Your task to perform on an android device: Show me the alarms in the clock app Image 0: 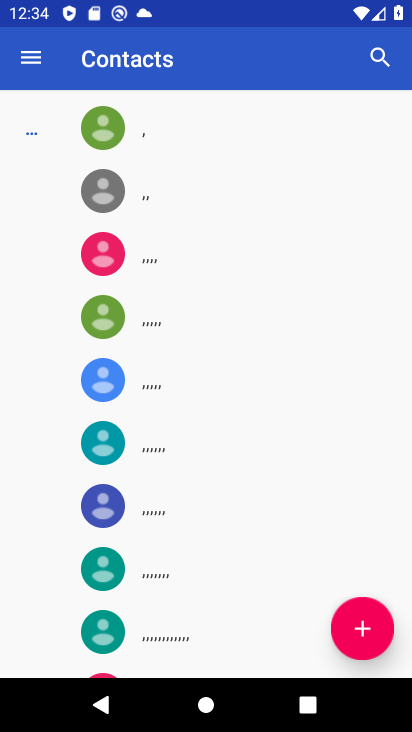
Step 0: press home button
Your task to perform on an android device: Show me the alarms in the clock app Image 1: 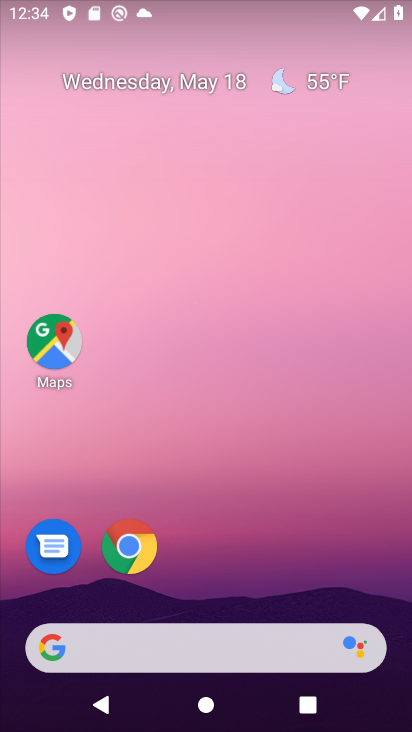
Step 1: drag from (391, 584) to (344, 145)
Your task to perform on an android device: Show me the alarms in the clock app Image 2: 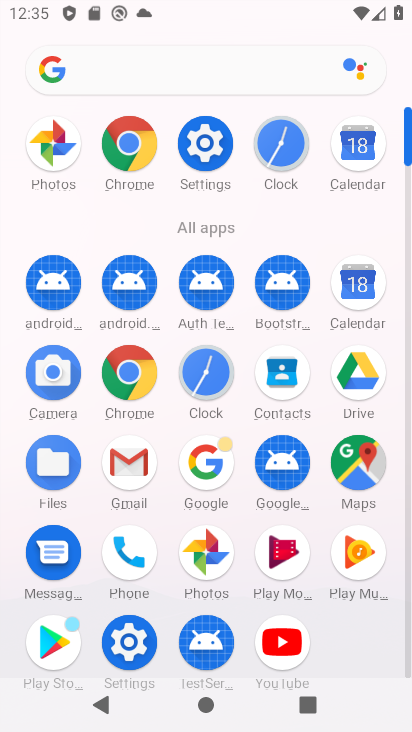
Step 2: click (215, 383)
Your task to perform on an android device: Show me the alarms in the clock app Image 3: 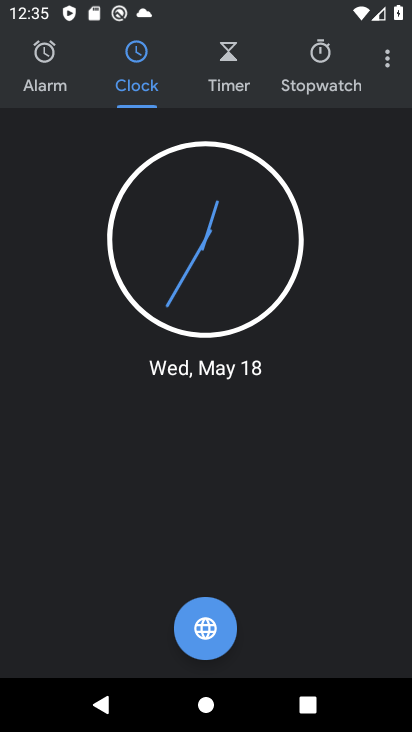
Step 3: click (59, 72)
Your task to perform on an android device: Show me the alarms in the clock app Image 4: 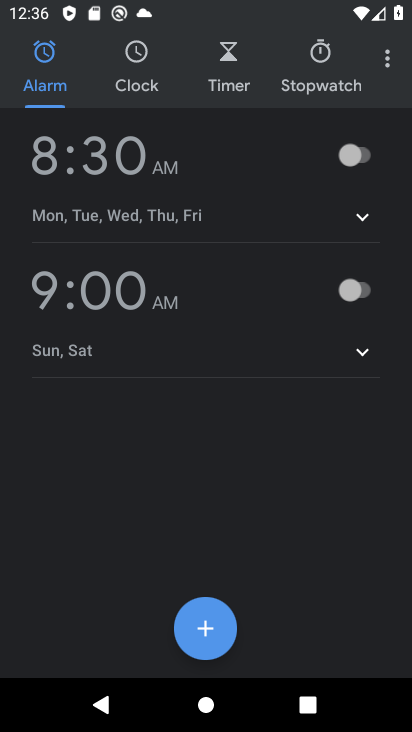
Step 4: task complete